Your task to perform on an android device: change the clock display to show seconds Image 0: 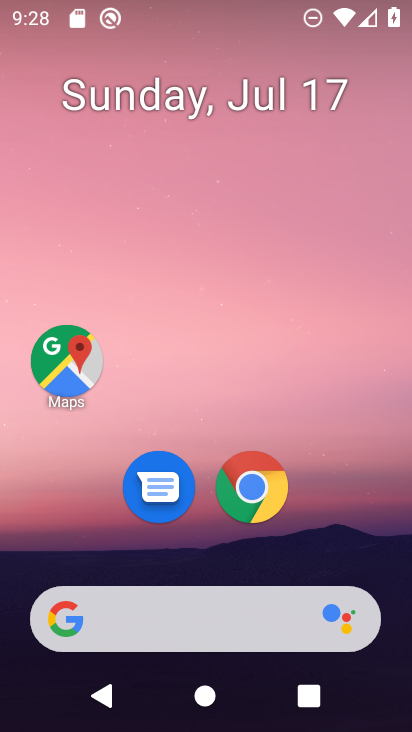
Step 0: press home button
Your task to perform on an android device: change the clock display to show seconds Image 1: 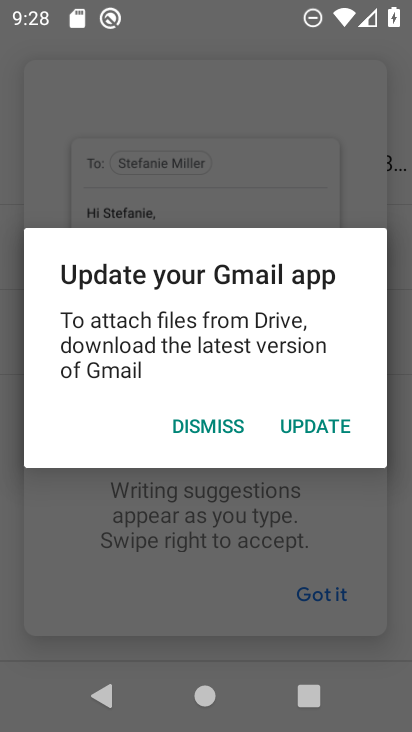
Step 1: press home button
Your task to perform on an android device: change the clock display to show seconds Image 2: 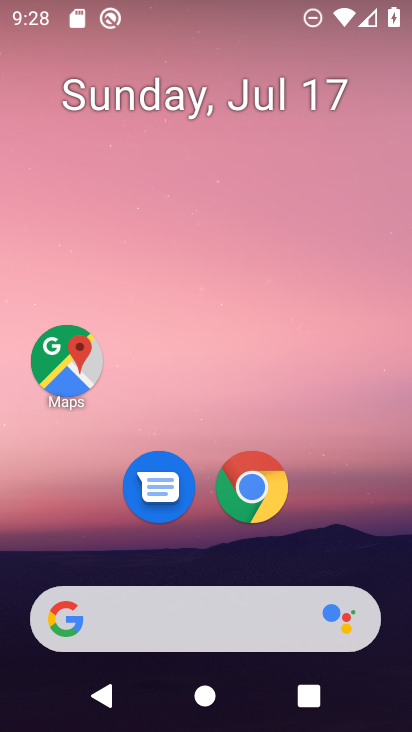
Step 2: drag from (304, 568) to (88, 34)
Your task to perform on an android device: change the clock display to show seconds Image 3: 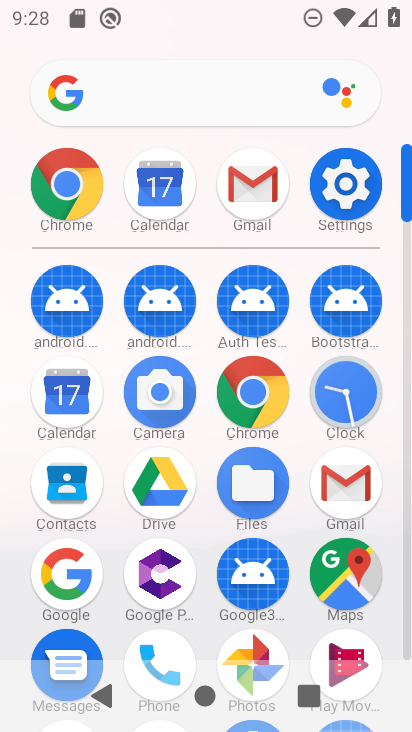
Step 3: click (350, 401)
Your task to perform on an android device: change the clock display to show seconds Image 4: 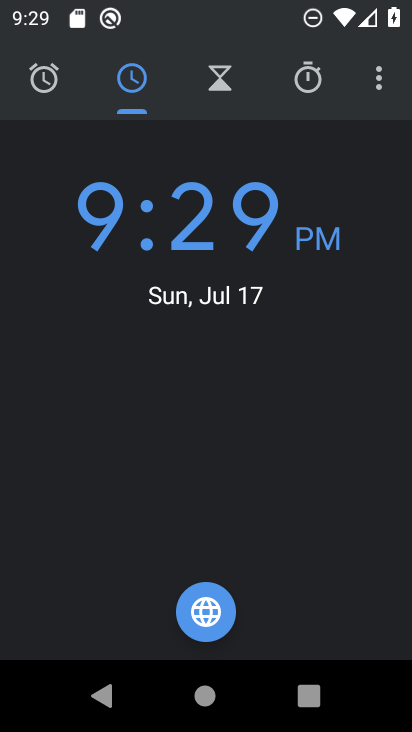
Step 4: click (381, 87)
Your task to perform on an android device: change the clock display to show seconds Image 5: 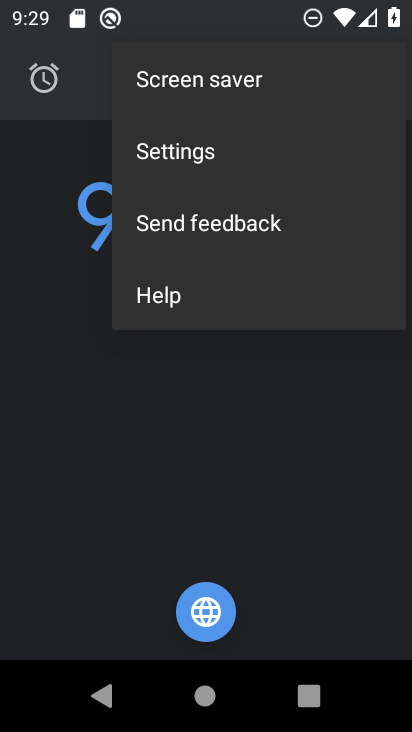
Step 5: click (169, 157)
Your task to perform on an android device: change the clock display to show seconds Image 6: 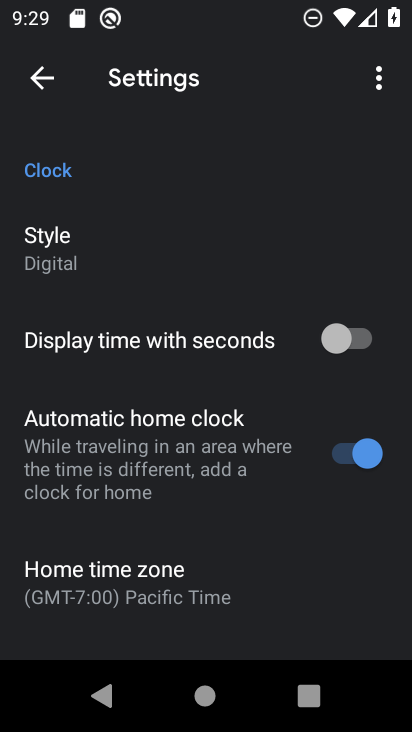
Step 6: click (330, 336)
Your task to perform on an android device: change the clock display to show seconds Image 7: 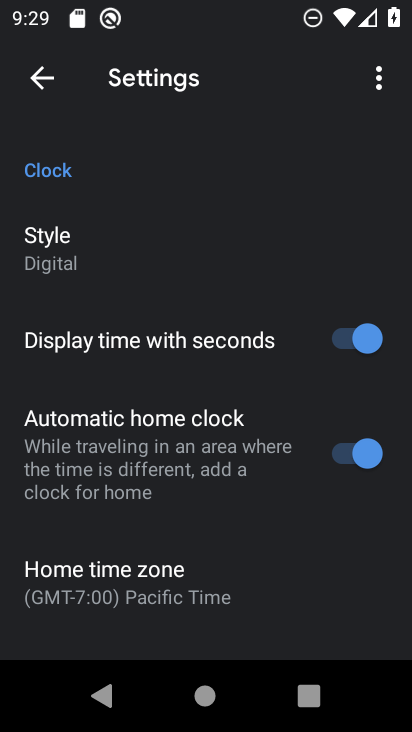
Step 7: task complete